Your task to perform on an android device: Go to privacy settings Image 0: 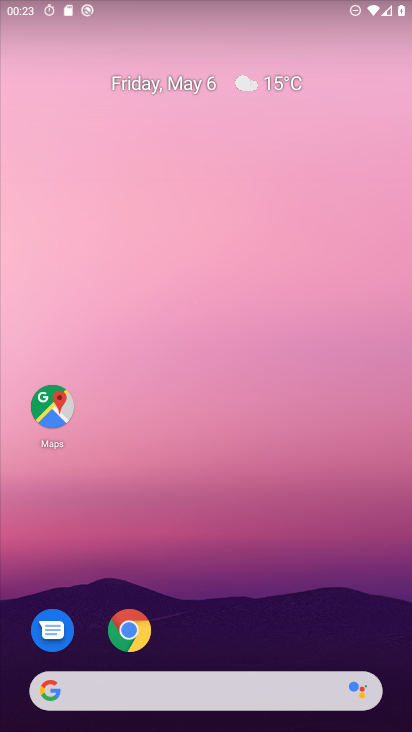
Step 0: drag from (288, 592) to (240, 105)
Your task to perform on an android device: Go to privacy settings Image 1: 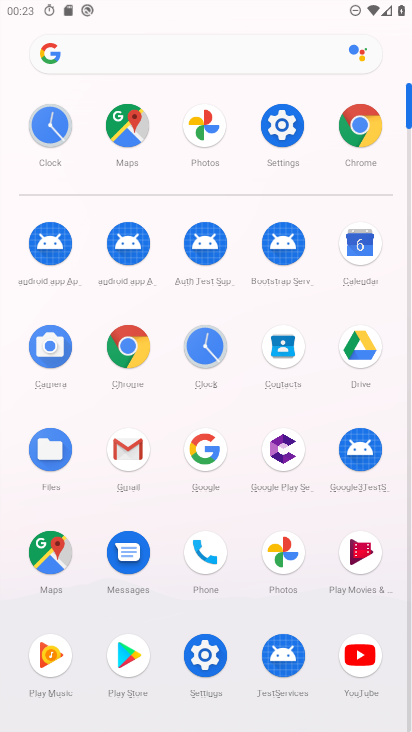
Step 1: click (213, 640)
Your task to perform on an android device: Go to privacy settings Image 2: 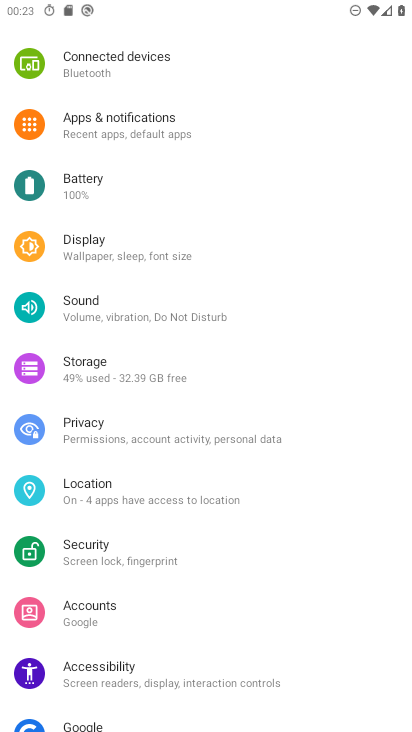
Step 2: click (119, 448)
Your task to perform on an android device: Go to privacy settings Image 3: 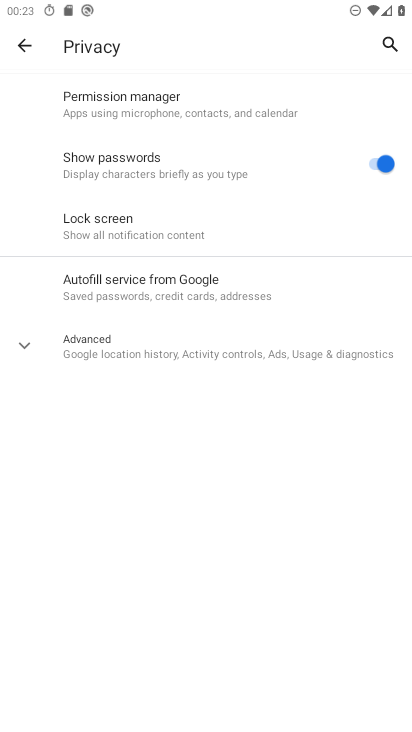
Step 3: task complete